Your task to perform on an android device: turn on notifications settings in the gmail app Image 0: 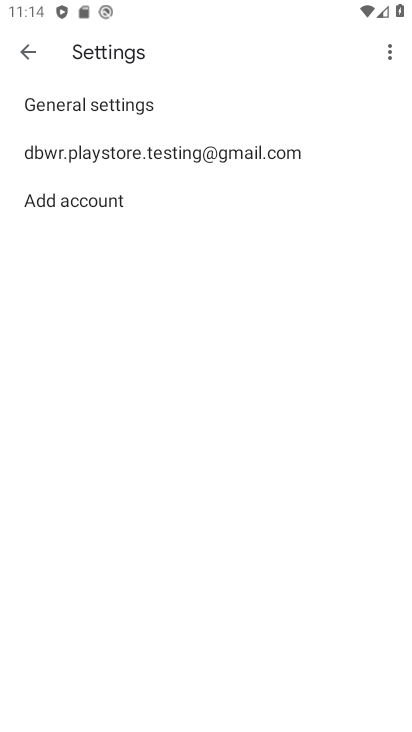
Step 0: press home button
Your task to perform on an android device: turn on notifications settings in the gmail app Image 1: 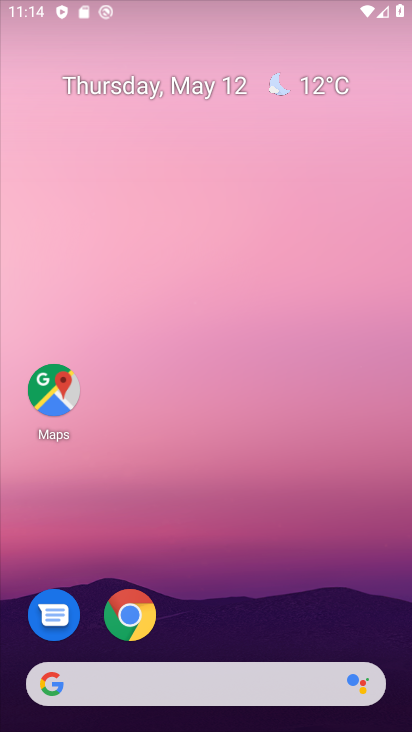
Step 1: drag from (223, 601) to (237, 160)
Your task to perform on an android device: turn on notifications settings in the gmail app Image 2: 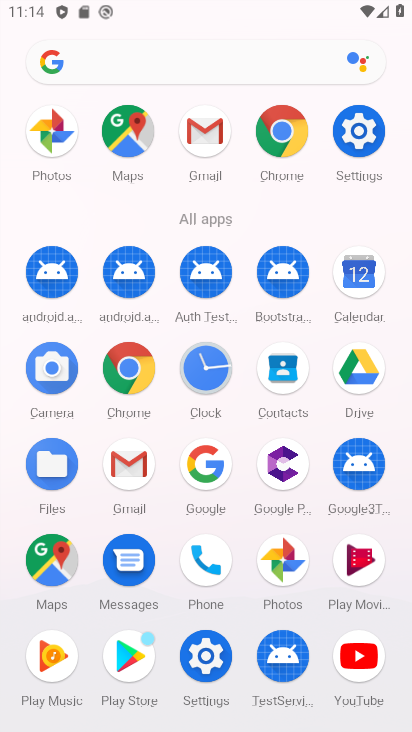
Step 2: click (190, 148)
Your task to perform on an android device: turn on notifications settings in the gmail app Image 3: 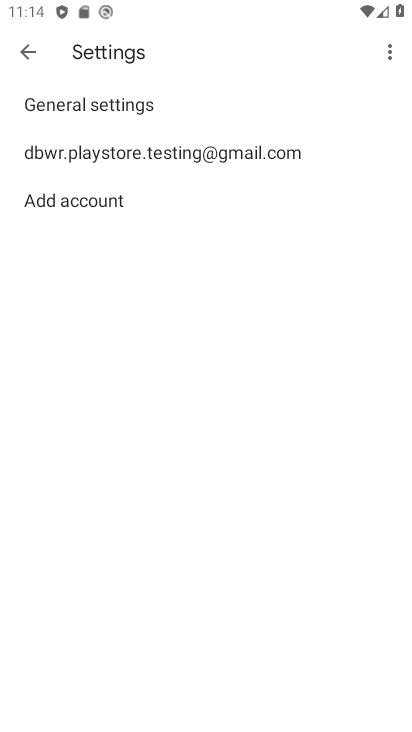
Step 3: click (109, 143)
Your task to perform on an android device: turn on notifications settings in the gmail app Image 4: 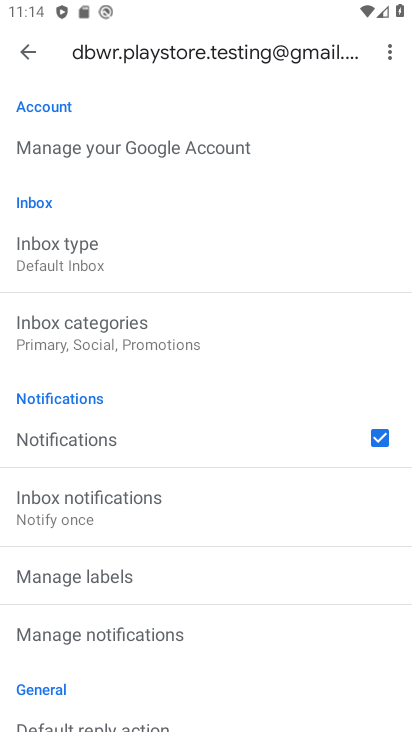
Step 4: drag from (149, 614) to (174, 511)
Your task to perform on an android device: turn on notifications settings in the gmail app Image 5: 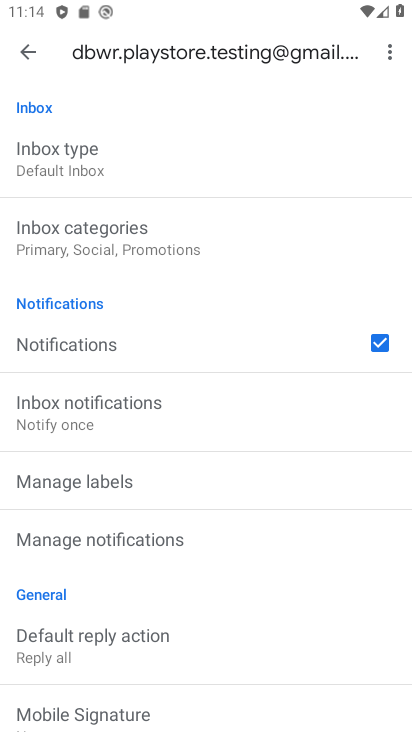
Step 5: click (152, 520)
Your task to perform on an android device: turn on notifications settings in the gmail app Image 6: 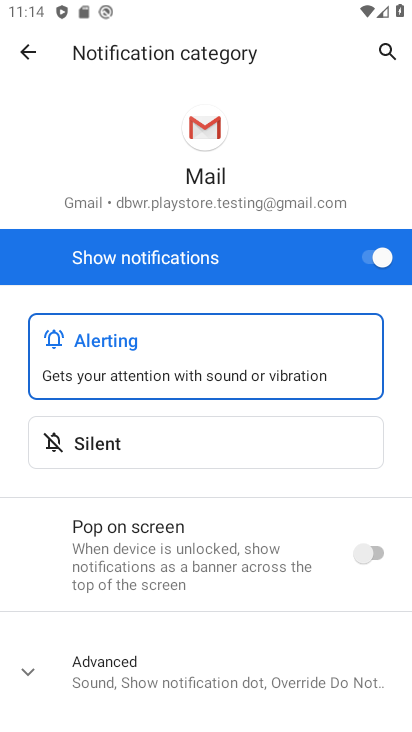
Step 6: task complete